Your task to perform on an android device: Open maps Image 0: 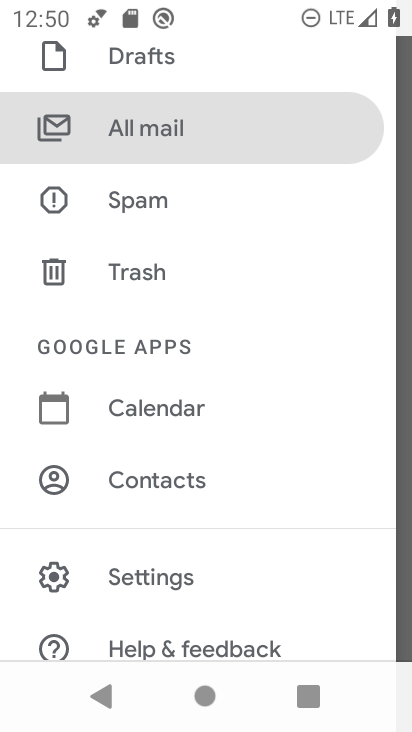
Step 0: press home button
Your task to perform on an android device: Open maps Image 1: 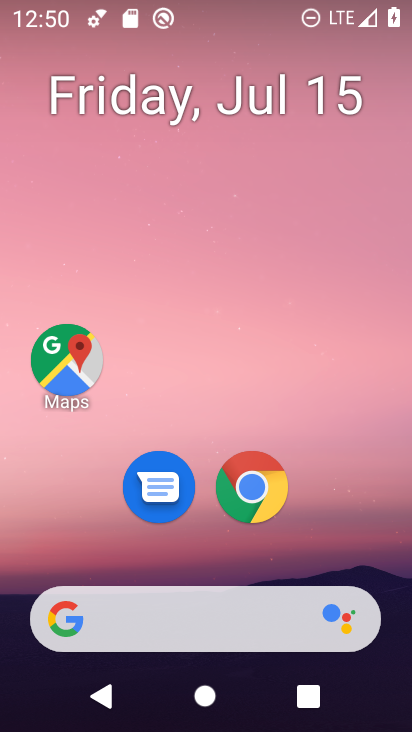
Step 1: drag from (224, 552) to (288, 124)
Your task to perform on an android device: Open maps Image 2: 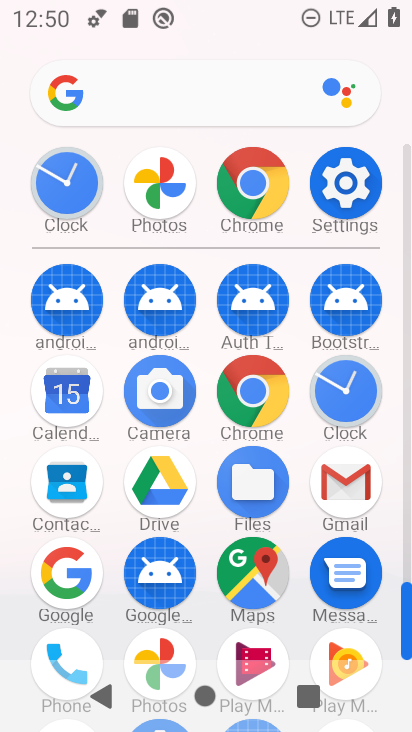
Step 2: click (268, 590)
Your task to perform on an android device: Open maps Image 3: 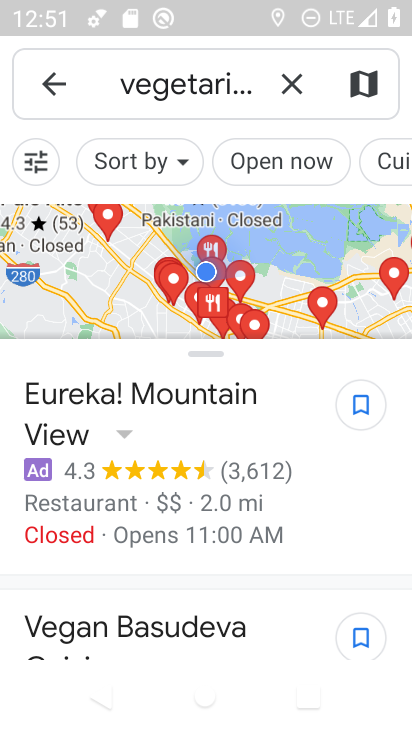
Step 3: task complete